Your task to perform on an android device: Open settings on Google Maps Image 0: 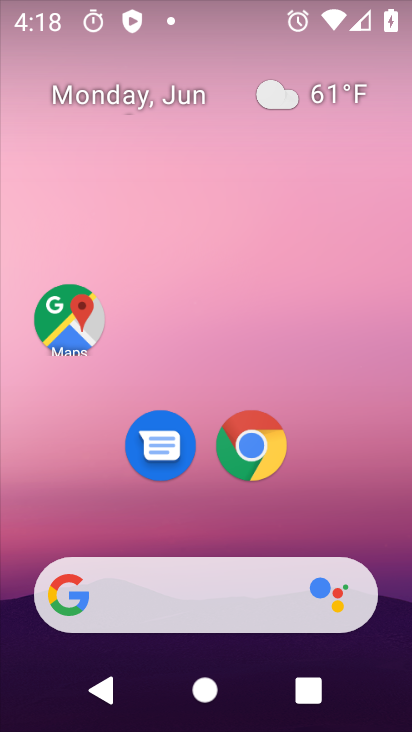
Step 0: click (76, 323)
Your task to perform on an android device: Open settings on Google Maps Image 1: 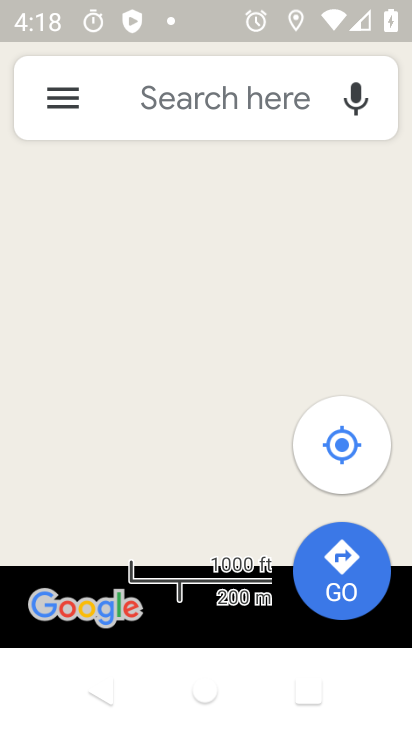
Step 1: click (62, 103)
Your task to perform on an android device: Open settings on Google Maps Image 2: 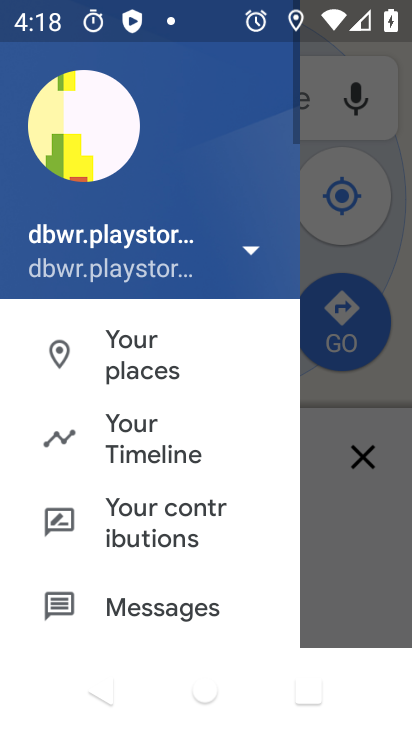
Step 2: drag from (119, 542) to (203, 59)
Your task to perform on an android device: Open settings on Google Maps Image 3: 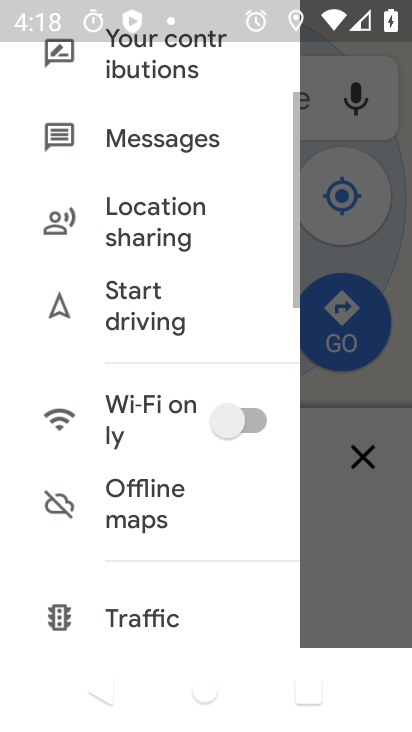
Step 3: drag from (165, 500) to (225, 59)
Your task to perform on an android device: Open settings on Google Maps Image 4: 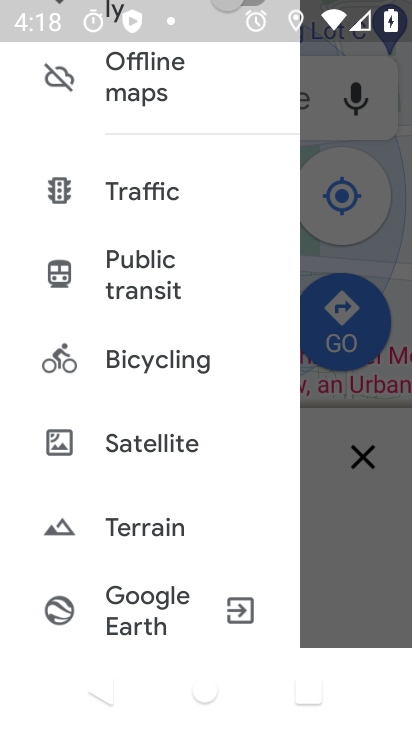
Step 4: drag from (129, 543) to (199, 83)
Your task to perform on an android device: Open settings on Google Maps Image 5: 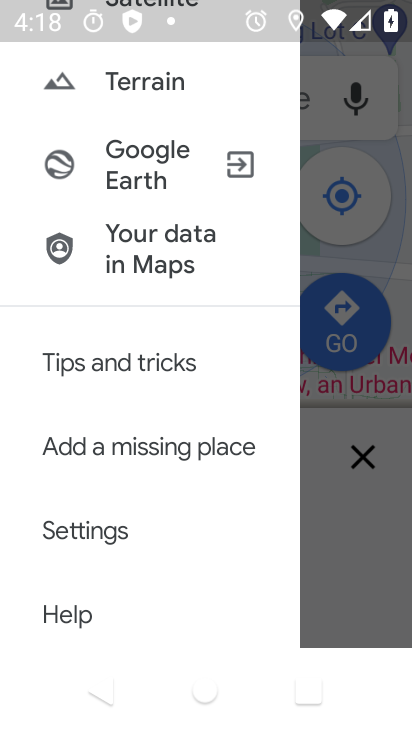
Step 5: click (85, 526)
Your task to perform on an android device: Open settings on Google Maps Image 6: 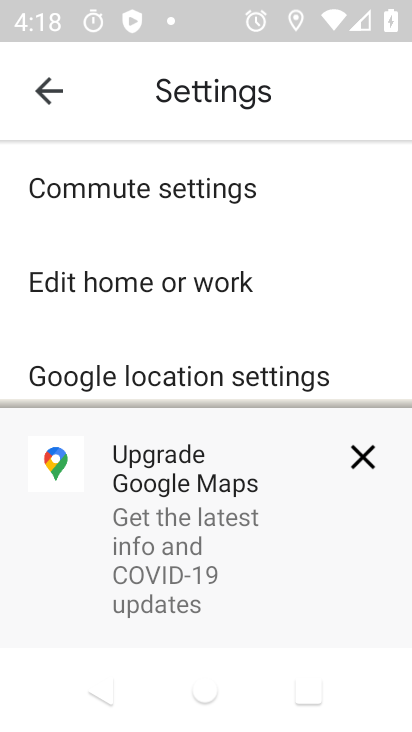
Step 6: click (351, 468)
Your task to perform on an android device: Open settings on Google Maps Image 7: 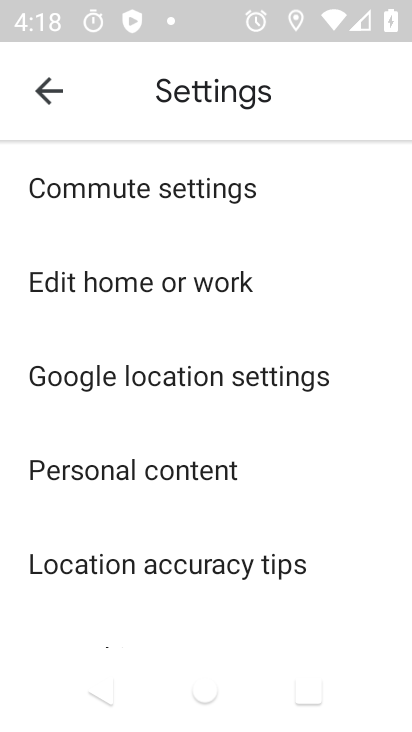
Step 7: task complete